Your task to perform on an android device: Open the Play Movies app and select the watchlist tab. Image 0: 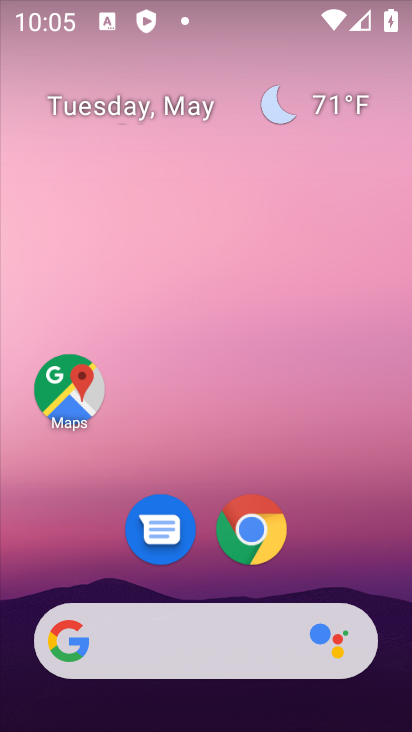
Step 0: drag from (333, 677) to (331, 218)
Your task to perform on an android device: Open the Play Movies app and select the watchlist tab. Image 1: 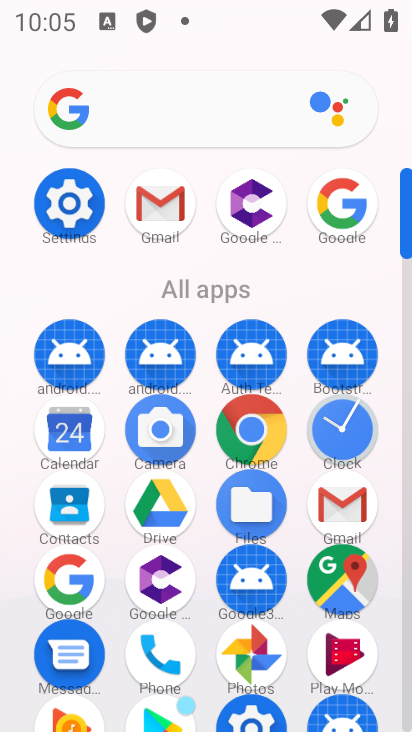
Step 1: drag from (280, 511) to (277, 315)
Your task to perform on an android device: Open the Play Movies app and select the watchlist tab. Image 2: 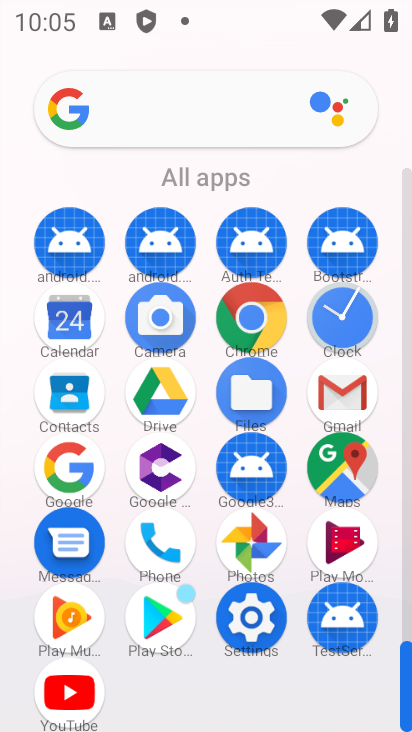
Step 2: click (352, 541)
Your task to perform on an android device: Open the Play Movies app and select the watchlist tab. Image 3: 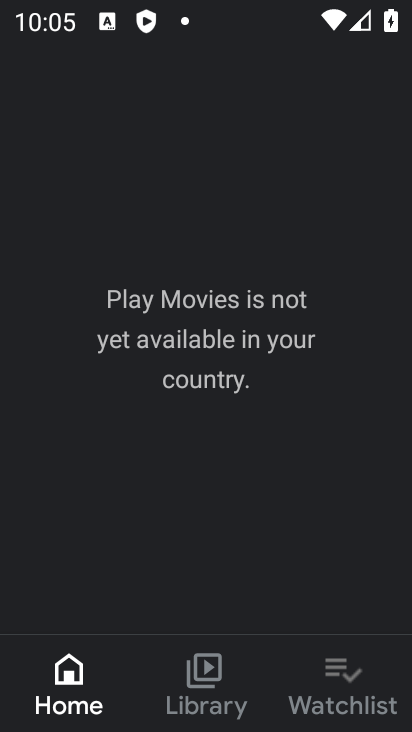
Step 3: click (332, 668)
Your task to perform on an android device: Open the Play Movies app and select the watchlist tab. Image 4: 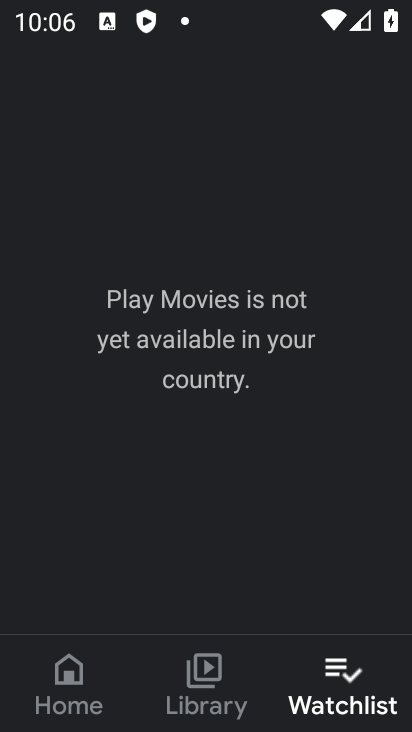
Step 4: task complete